Your task to perform on an android device: open app "Venmo" Image 0: 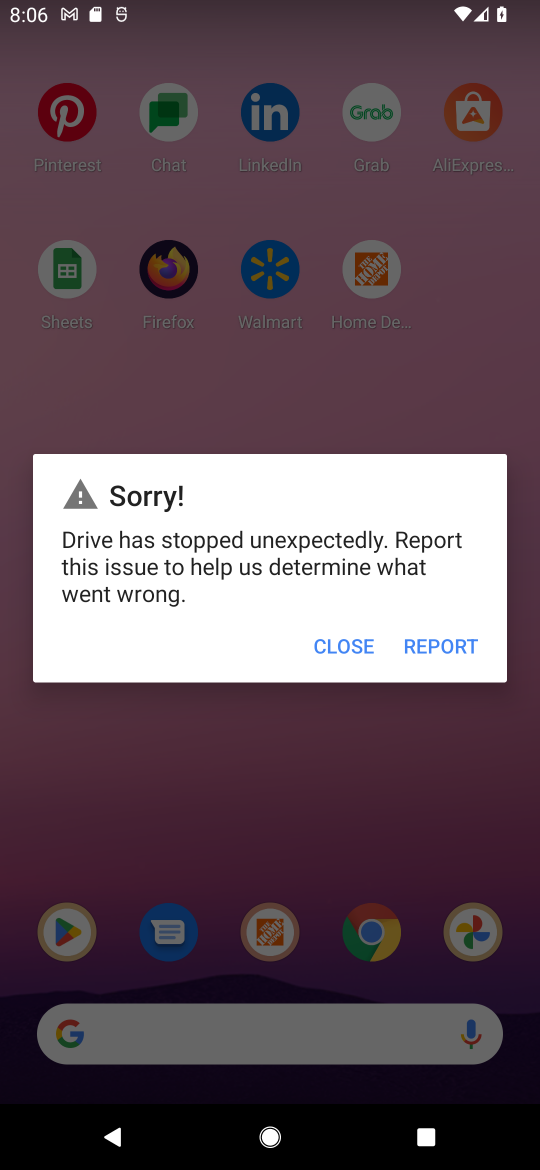
Step 0: click (58, 933)
Your task to perform on an android device: open app "Venmo" Image 1: 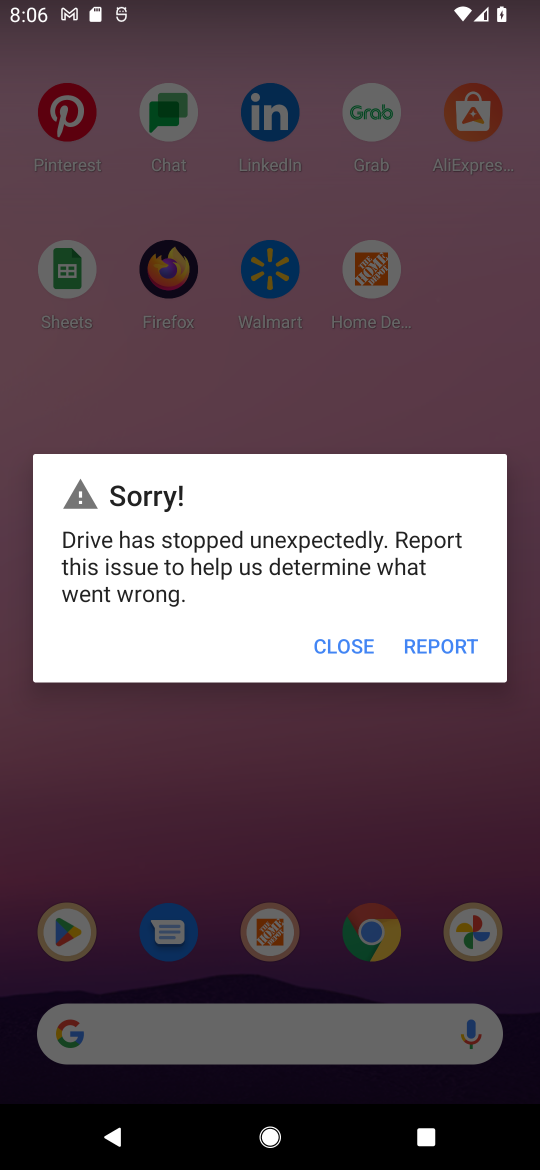
Step 1: click (343, 645)
Your task to perform on an android device: open app "Venmo" Image 2: 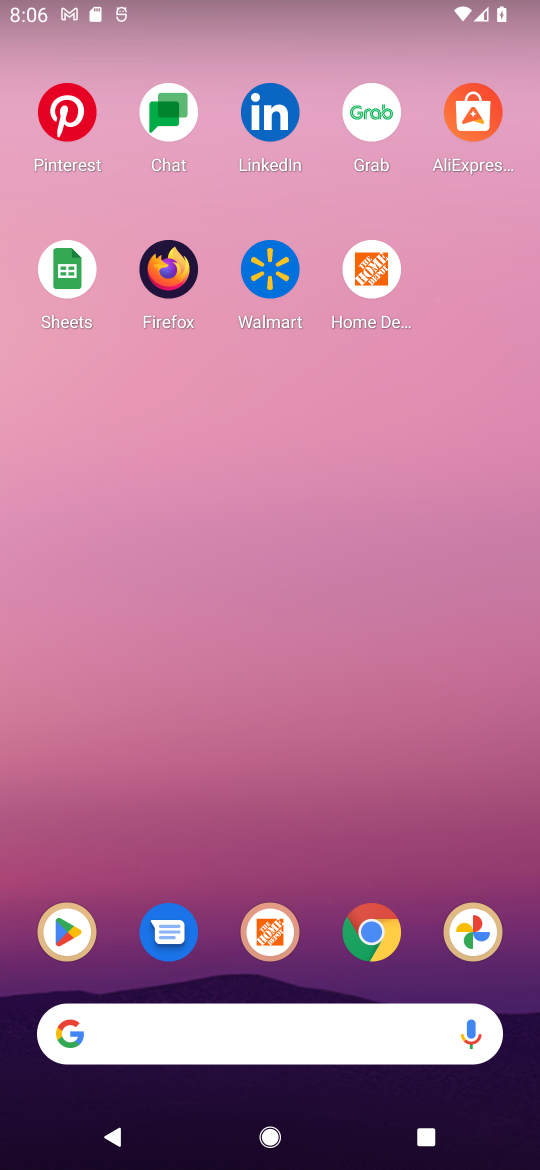
Step 2: click (37, 963)
Your task to perform on an android device: open app "Venmo" Image 3: 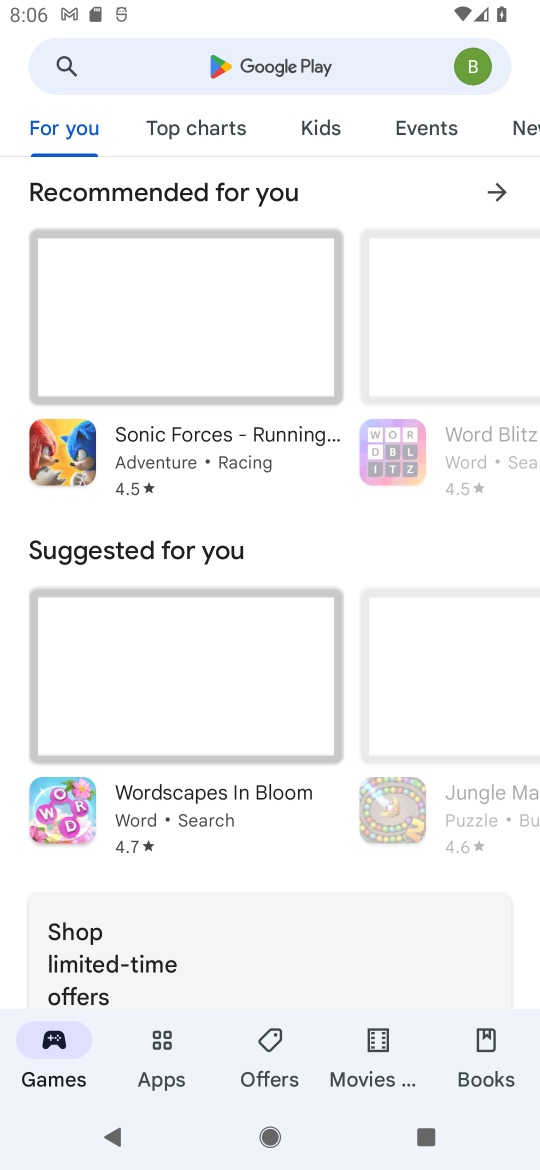
Step 3: click (232, 77)
Your task to perform on an android device: open app "Venmo" Image 4: 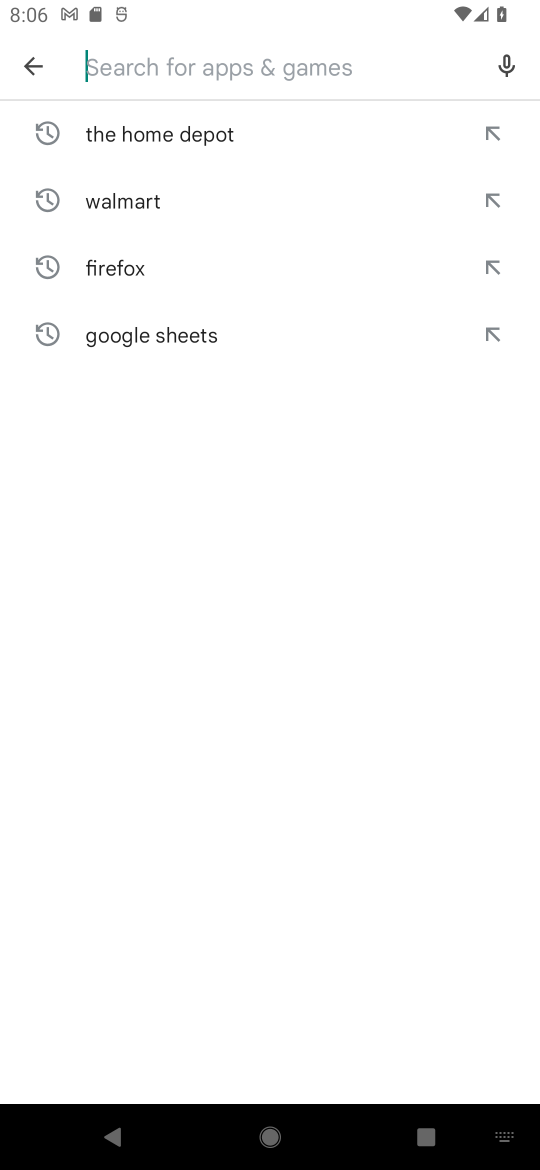
Step 4: type "venmo"
Your task to perform on an android device: open app "Venmo" Image 5: 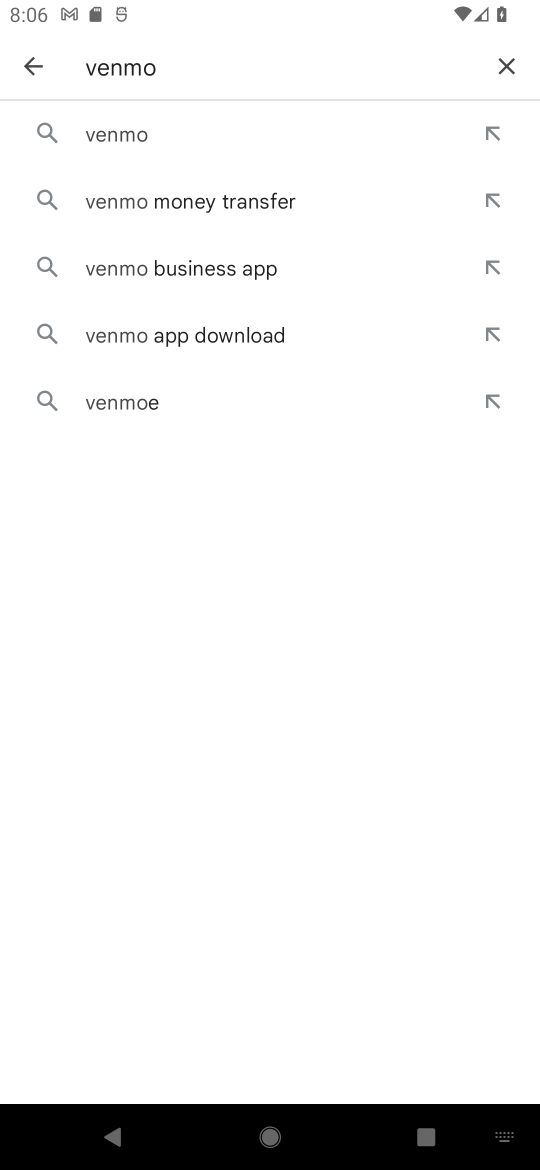
Step 5: click (175, 132)
Your task to perform on an android device: open app "Venmo" Image 6: 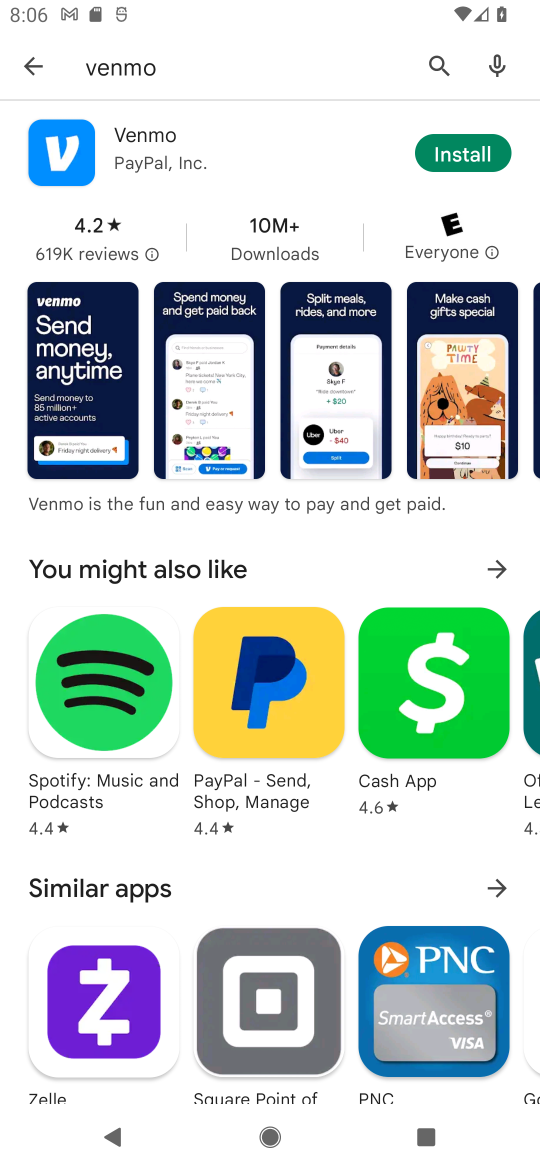
Step 6: task complete